Your task to perform on an android device: Go to wifi settings Image 0: 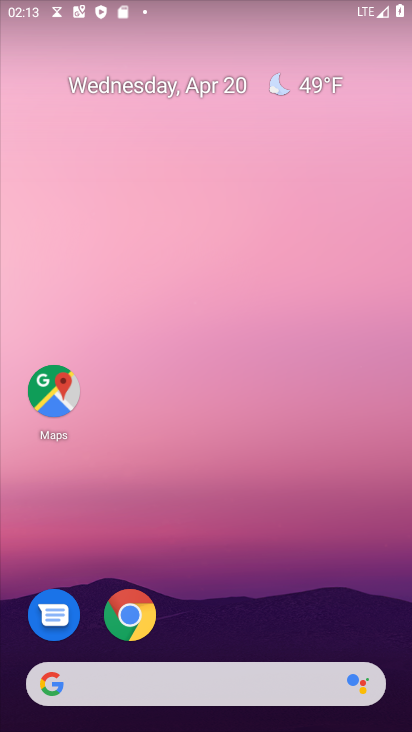
Step 0: drag from (227, 617) to (261, 57)
Your task to perform on an android device: Go to wifi settings Image 1: 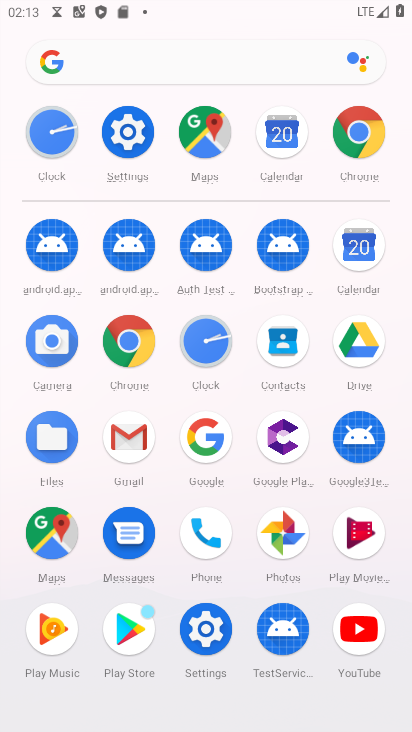
Step 1: click (188, 637)
Your task to perform on an android device: Go to wifi settings Image 2: 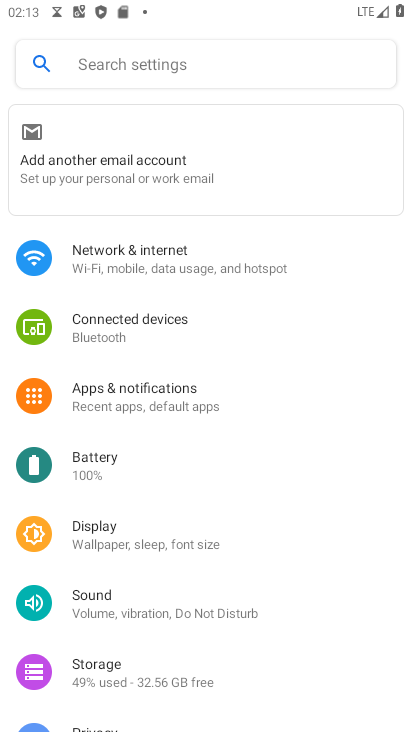
Step 2: click (170, 256)
Your task to perform on an android device: Go to wifi settings Image 3: 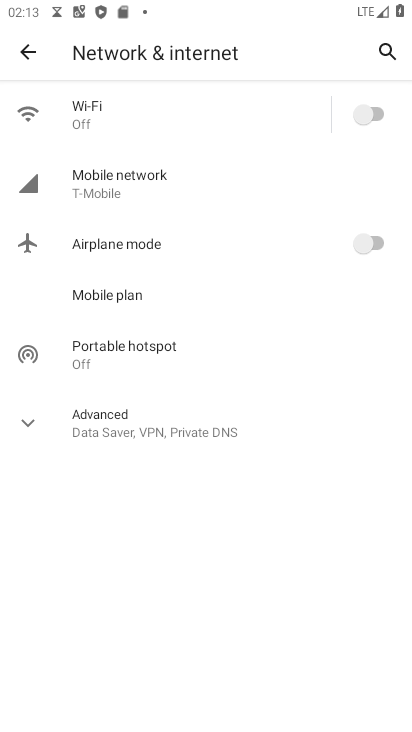
Step 3: click (175, 113)
Your task to perform on an android device: Go to wifi settings Image 4: 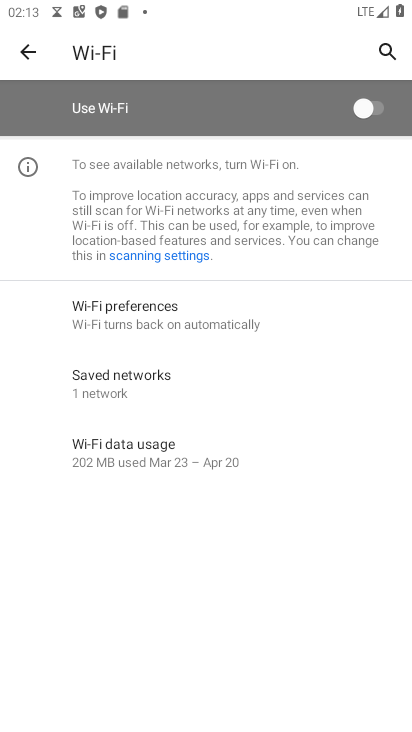
Step 4: task complete